Your task to perform on an android device: turn on data saver in the chrome app Image 0: 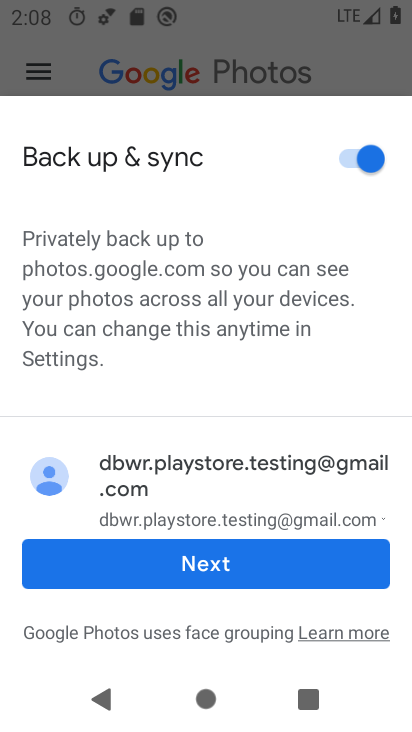
Step 0: press home button
Your task to perform on an android device: turn on data saver in the chrome app Image 1: 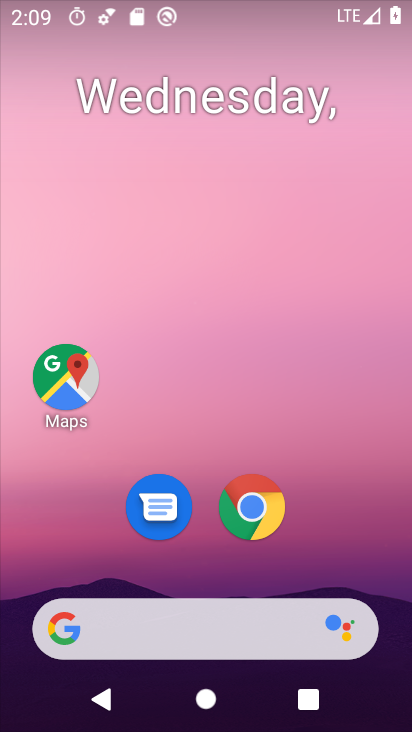
Step 1: click (254, 498)
Your task to perform on an android device: turn on data saver in the chrome app Image 2: 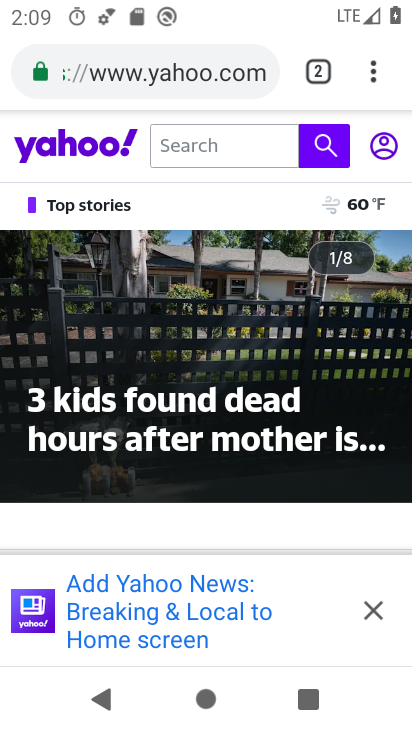
Step 2: click (363, 72)
Your task to perform on an android device: turn on data saver in the chrome app Image 3: 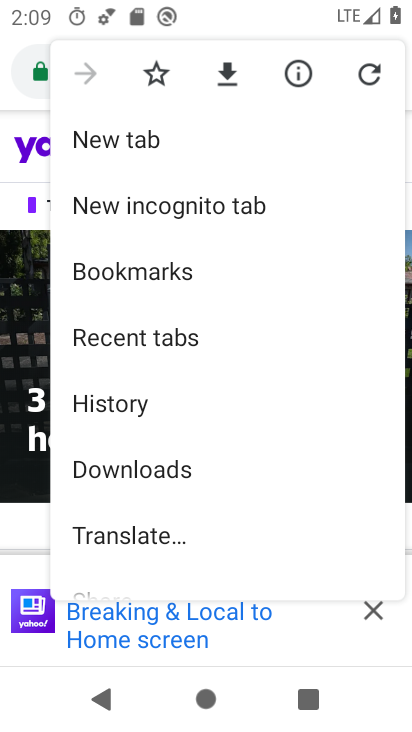
Step 3: drag from (177, 530) to (232, 118)
Your task to perform on an android device: turn on data saver in the chrome app Image 4: 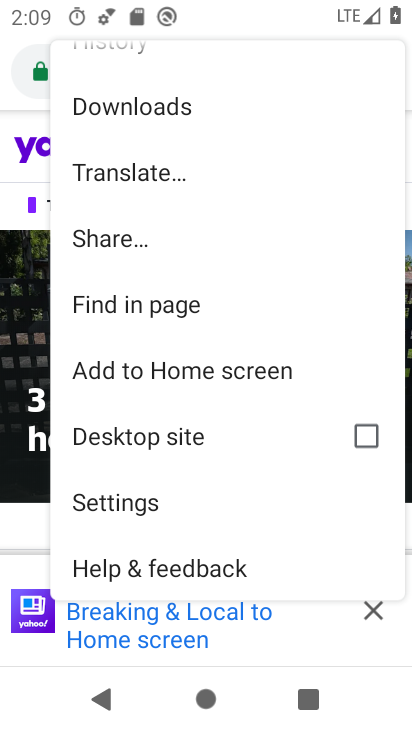
Step 4: click (107, 497)
Your task to perform on an android device: turn on data saver in the chrome app Image 5: 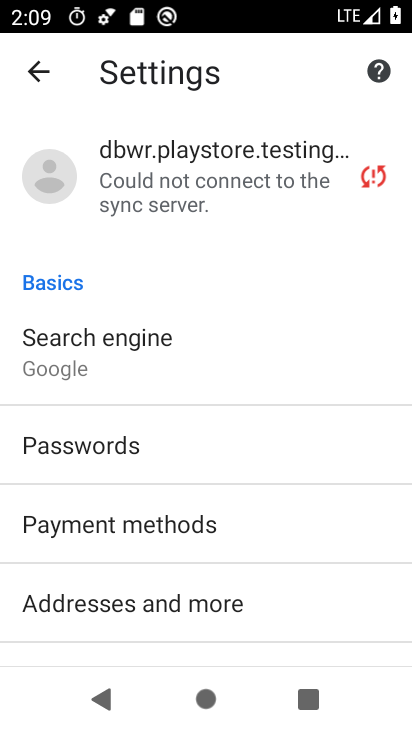
Step 5: drag from (126, 545) to (218, 109)
Your task to perform on an android device: turn on data saver in the chrome app Image 6: 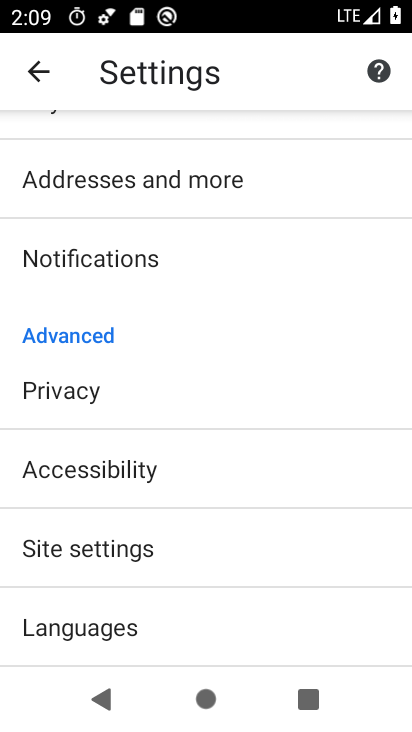
Step 6: drag from (143, 558) to (183, 230)
Your task to perform on an android device: turn on data saver in the chrome app Image 7: 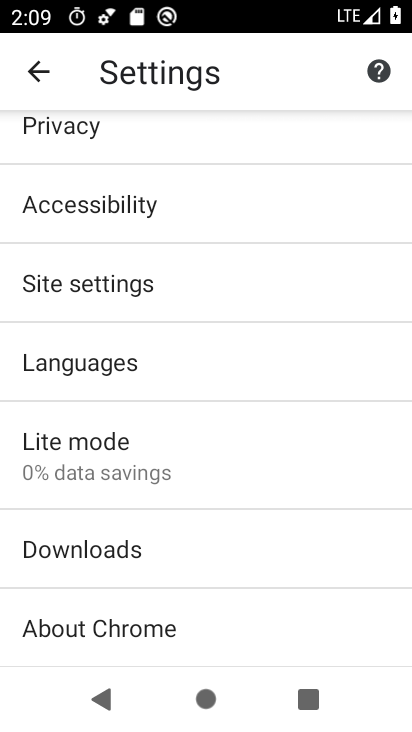
Step 7: click (101, 465)
Your task to perform on an android device: turn on data saver in the chrome app Image 8: 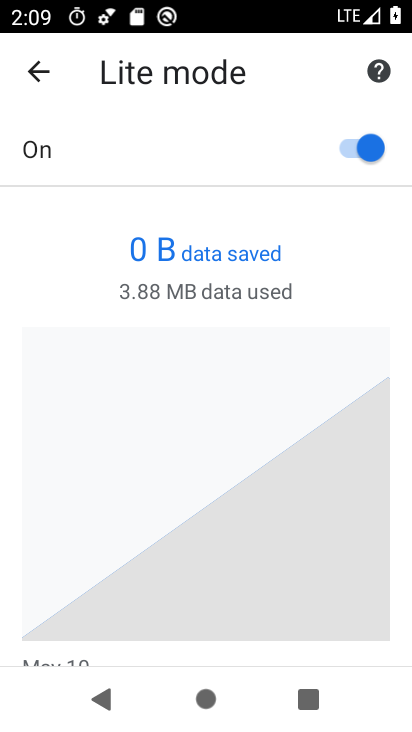
Step 8: task complete